Your task to perform on an android device: snooze an email in the gmail app Image 0: 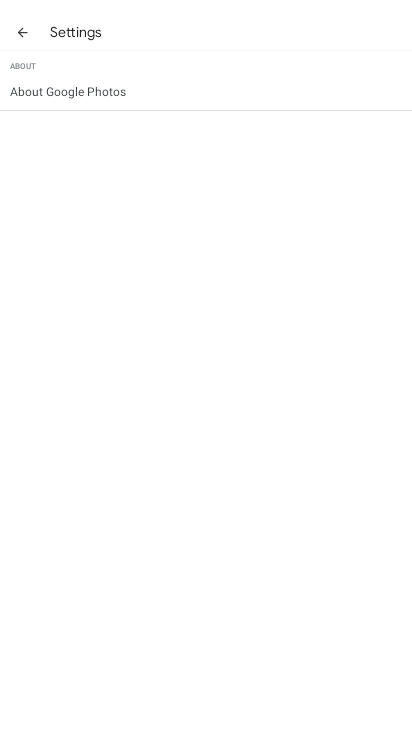
Step 0: press home button
Your task to perform on an android device: snooze an email in the gmail app Image 1: 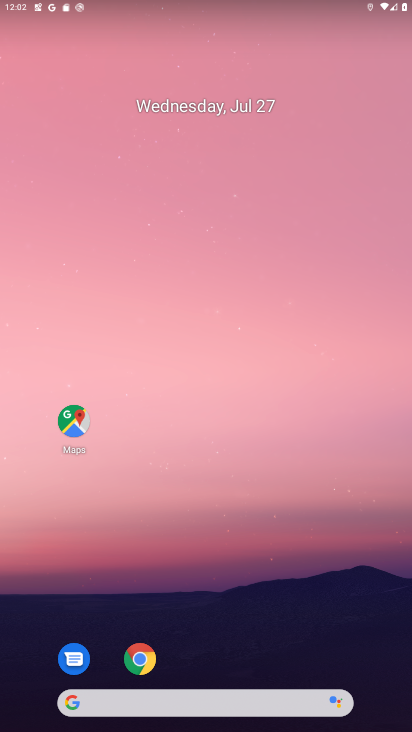
Step 1: drag from (311, 704) to (274, 0)
Your task to perform on an android device: snooze an email in the gmail app Image 2: 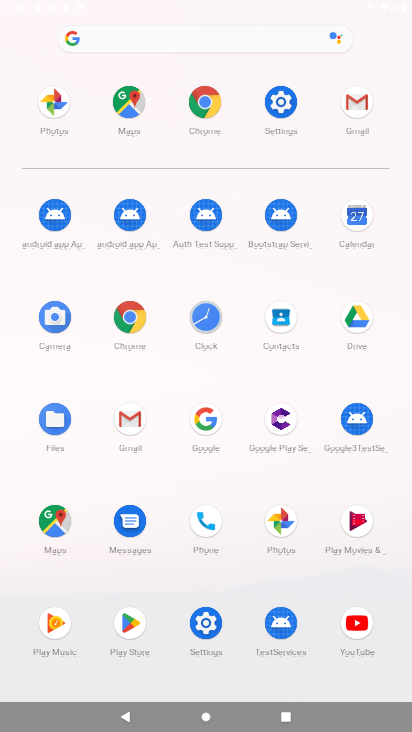
Step 2: click (128, 413)
Your task to perform on an android device: snooze an email in the gmail app Image 3: 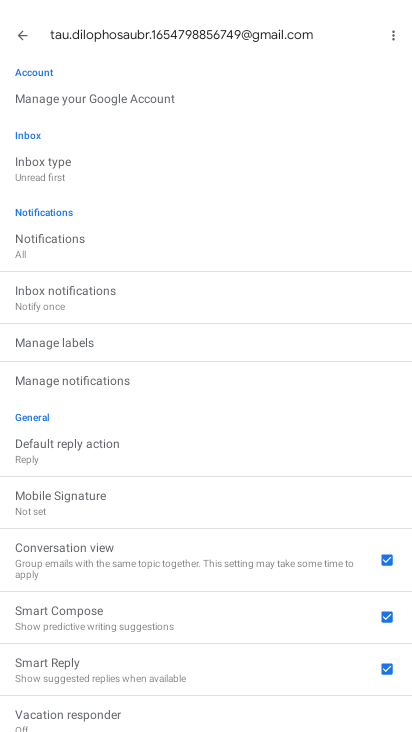
Step 3: press back button
Your task to perform on an android device: snooze an email in the gmail app Image 4: 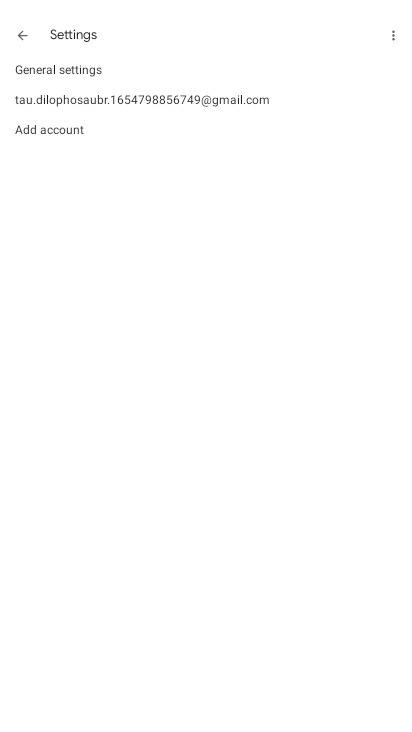
Step 4: press back button
Your task to perform on an android device: snooze an email in the gmail app Image 5: 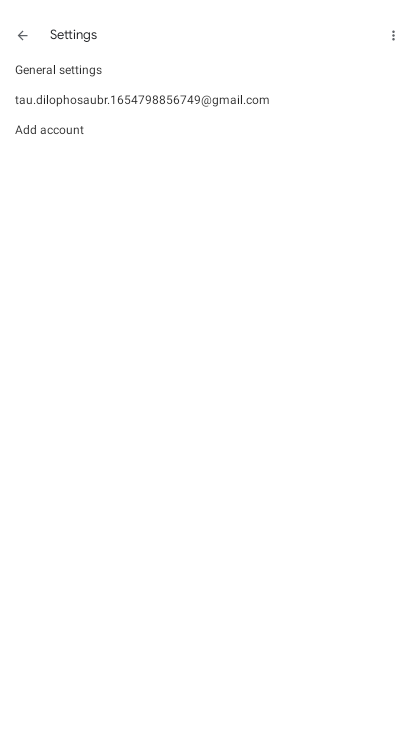
Step 5: press back button
Your task to perform on an android device: snooze an email in the gmail app Image 6: 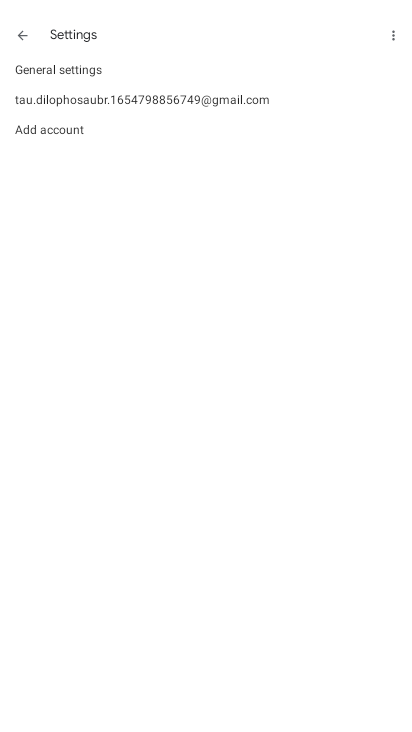
Step 6: press back button
Your task to perform on an android device: snooze an email in the gmail app Image 7: 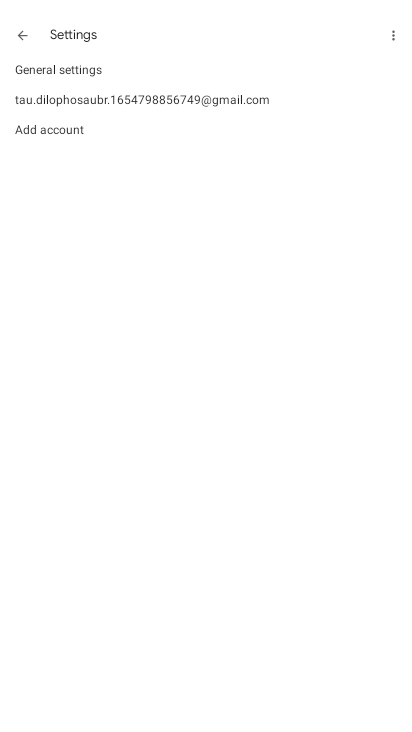
Step 7: press back button
Your task to perform on an android device: snooze an email in the gmail app Image 8: 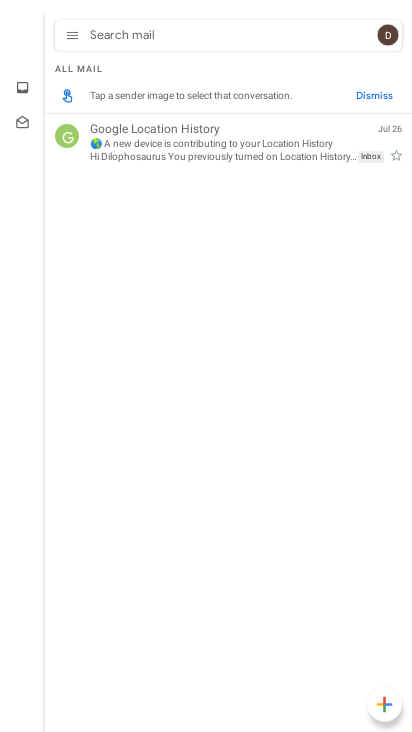
Step 8: click (76, 34)
Your task to perform on an android device: snooze an email in the gmail app Image 9: 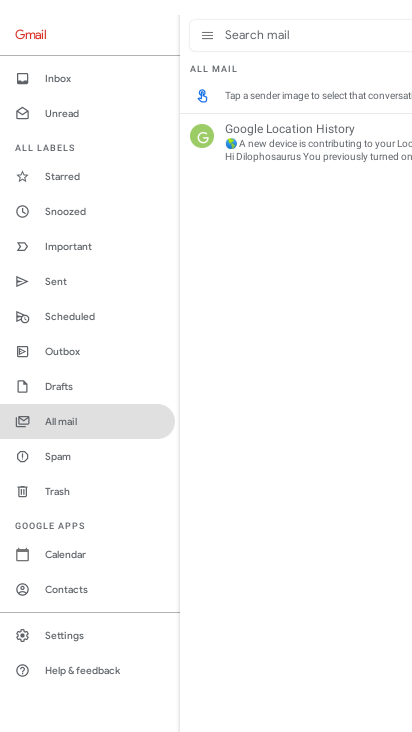
Step 9: click (60, 216)
Your task to perform on an android device: snooze an email in the gmail app Image 10: 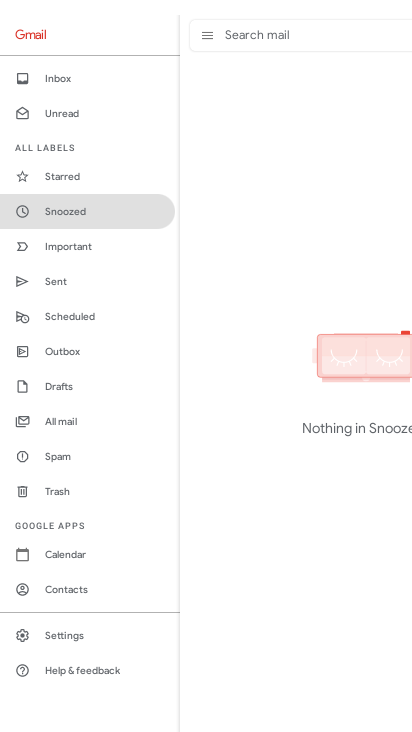
Step 10: task complete